Your task to perform on an android device: check out phone information Image 0: 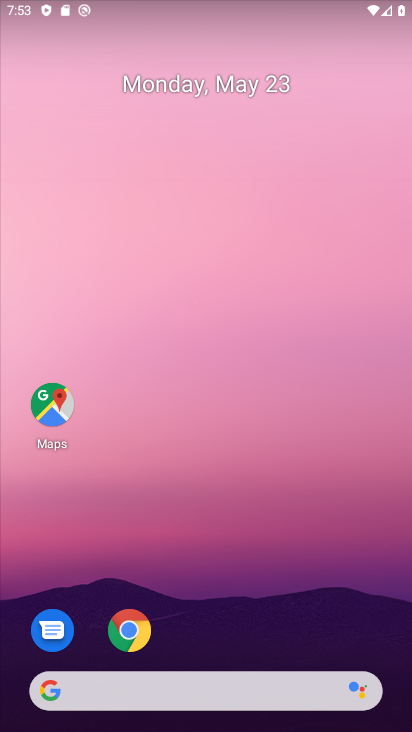
Step 0: drag from (153, 189) to (152, 122)
Your task to perform on an android device: check out phone information Image 1: 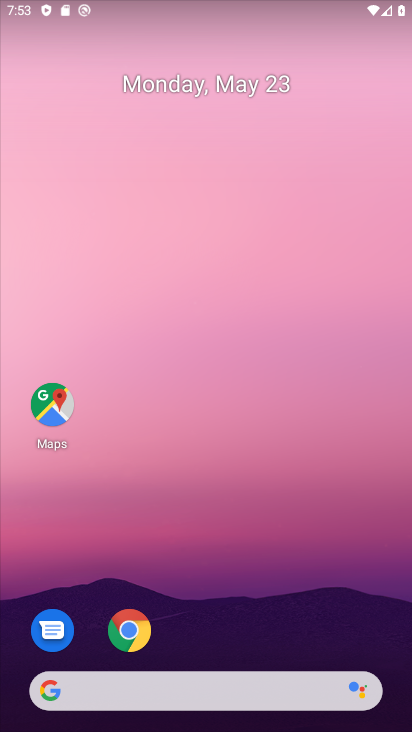
Step 1: drag from (238, 598) to (234, 258)
Your task to perform on an android device: check out phone information Image 2: 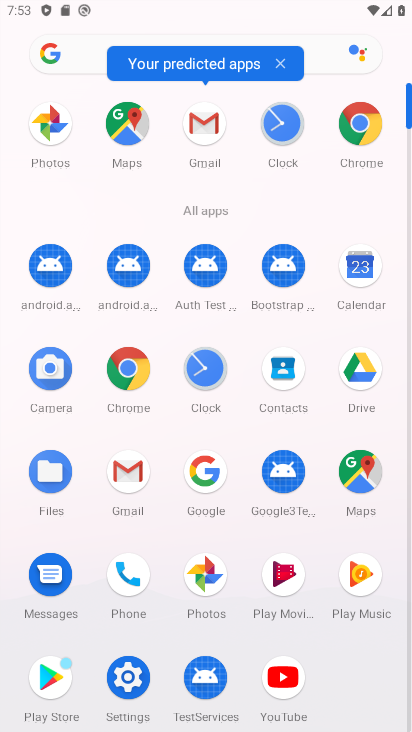
Step 2: click (132, 684)
Your task to perform on an android device: check out phone information Image 3: 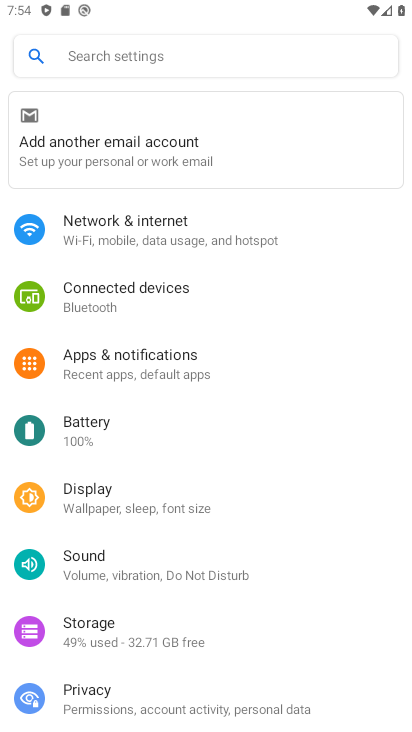
Step 3: drag from (229, 670) to (196, 418)
Your task to perform on an android device: check out phone information Image 4: 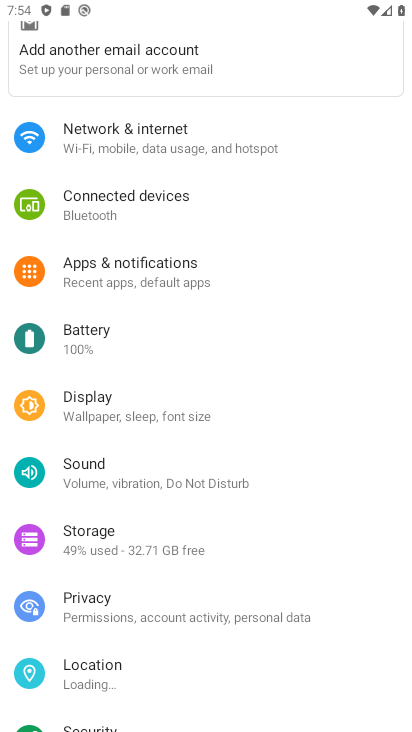
Step 4: drag from (156, 667) to (203, 321)
Your task to perform on an android device: check out phone information Image 5: 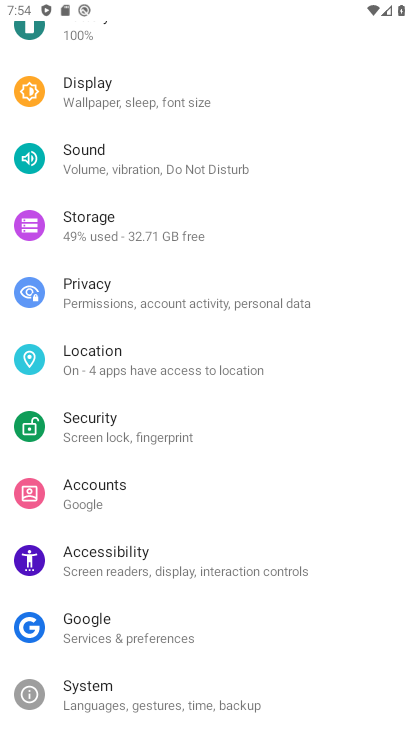
Step 5: drag from (130, 593) to (137, 450)
Your task to perform on an android device: check out phone information Image 6: 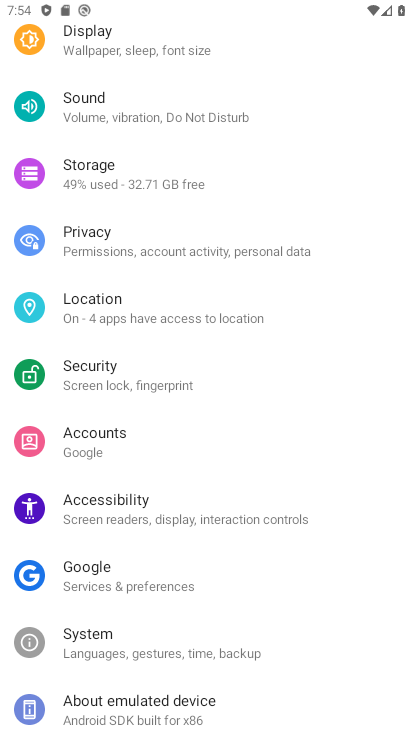
Step 6: click (111, 720)
Your task to perform on an android device: check out phone information Image 7: 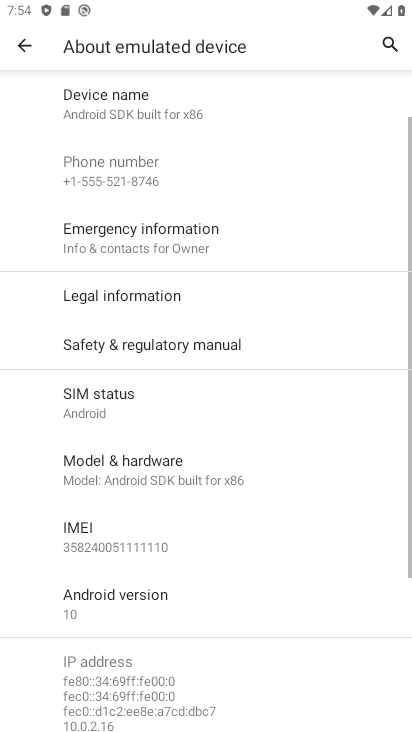
Step 7: task complete